Your task to perform on an android device: turn off translation in the chrome app Image 0: 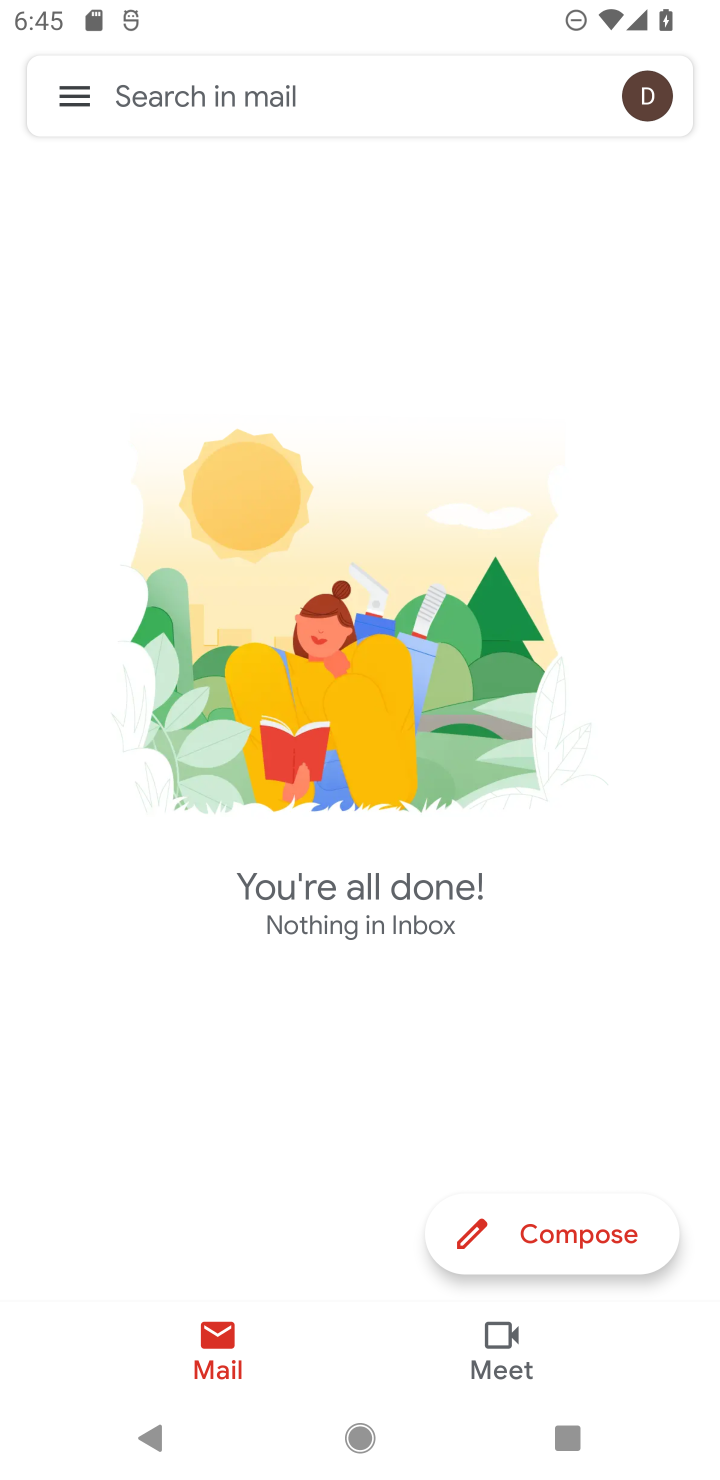
Step 0: press home button
Your task to perform on an android device: turn off translation in the chrome app Image 1: 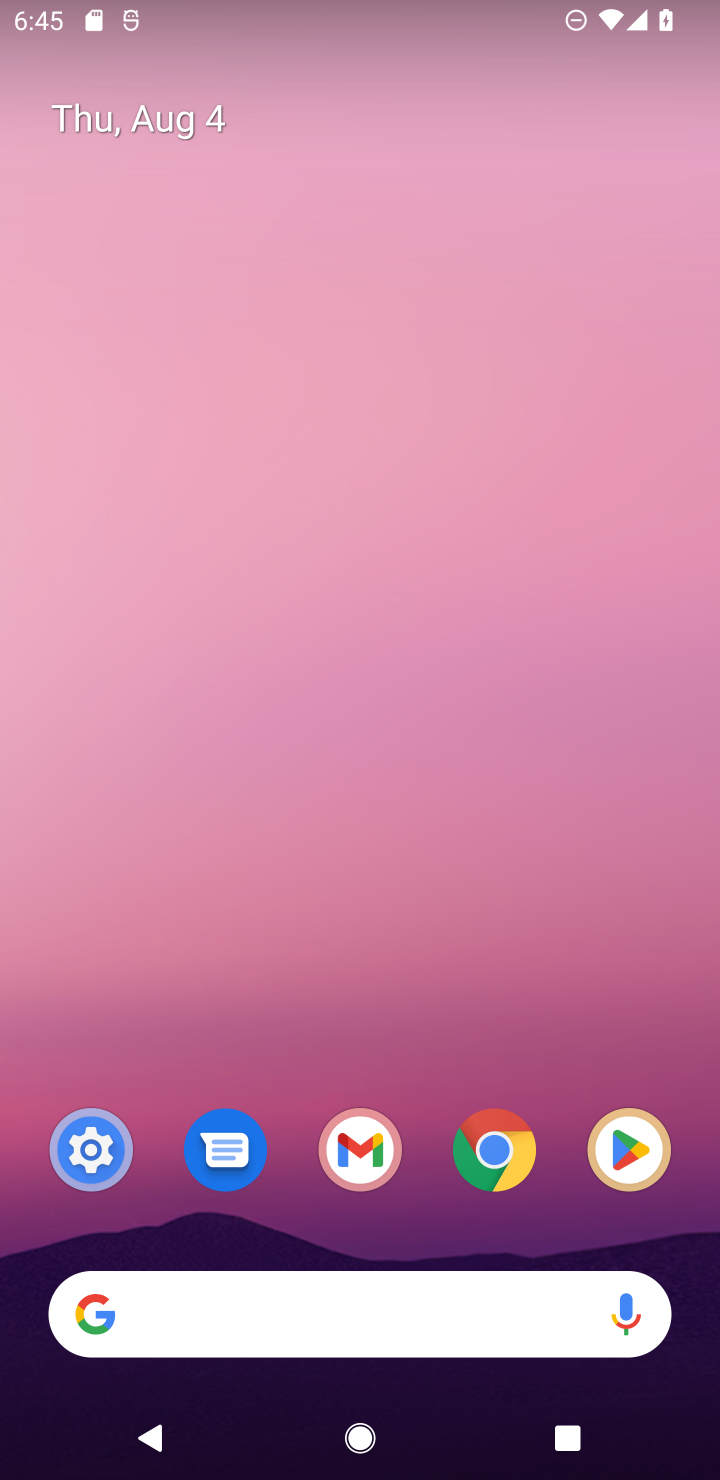
Step 1: drag from (307, 1283) to (220, 149)
Your task to perform on an android device: turn off translation in the chrome app Image 2: 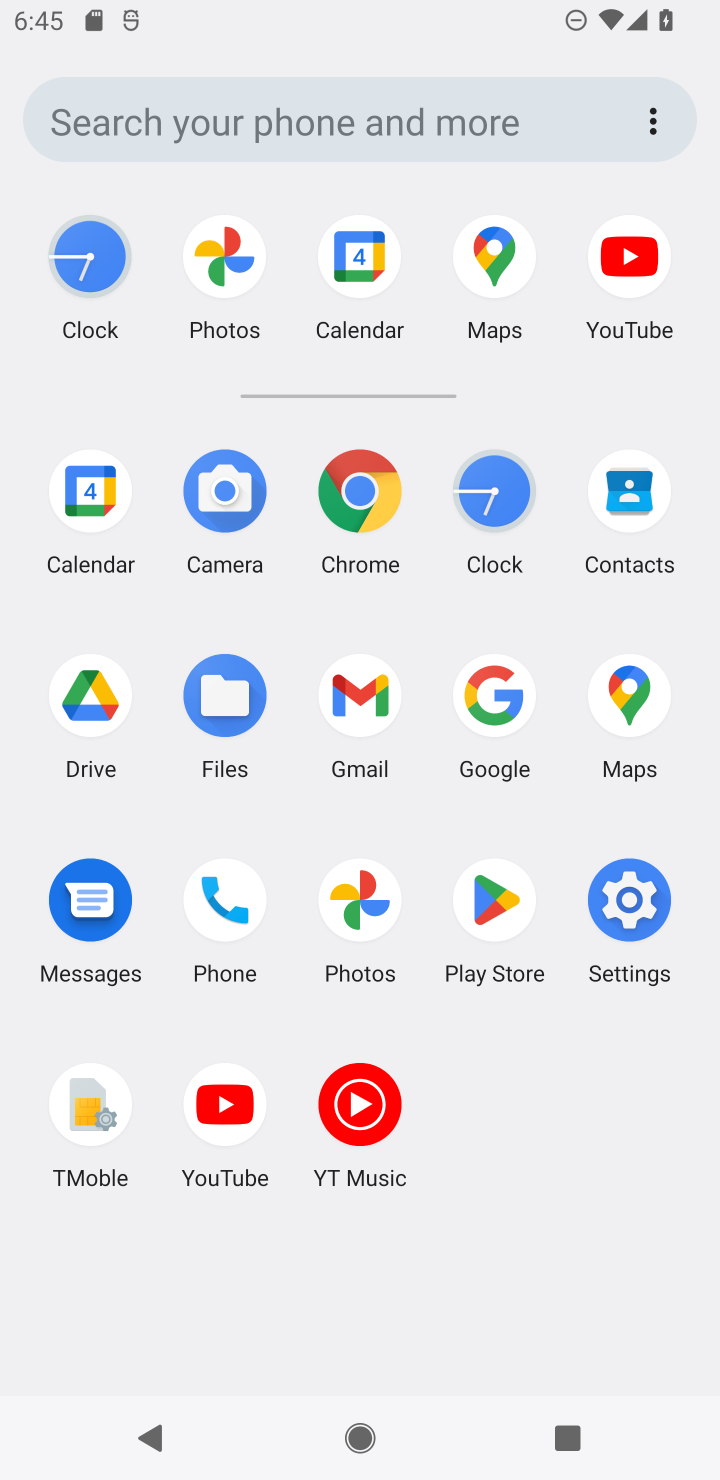
Step 2: click (360, 491)
Your task to perform on an android device: turn off translation in the chrome app Image 3: 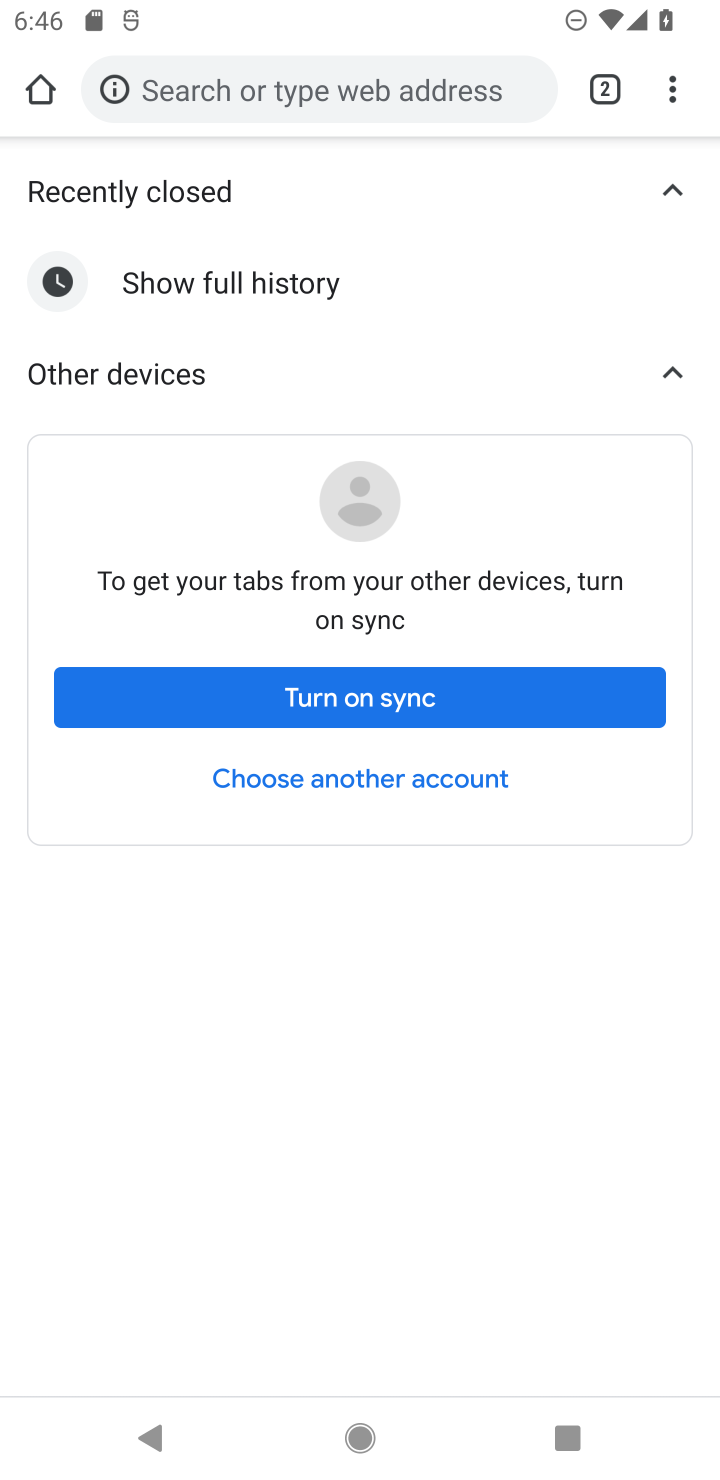
Step 3: drag from (664, 71) to (421, 908)
Your task to perform on an android device: turn off translation in the chrome app Image 4: 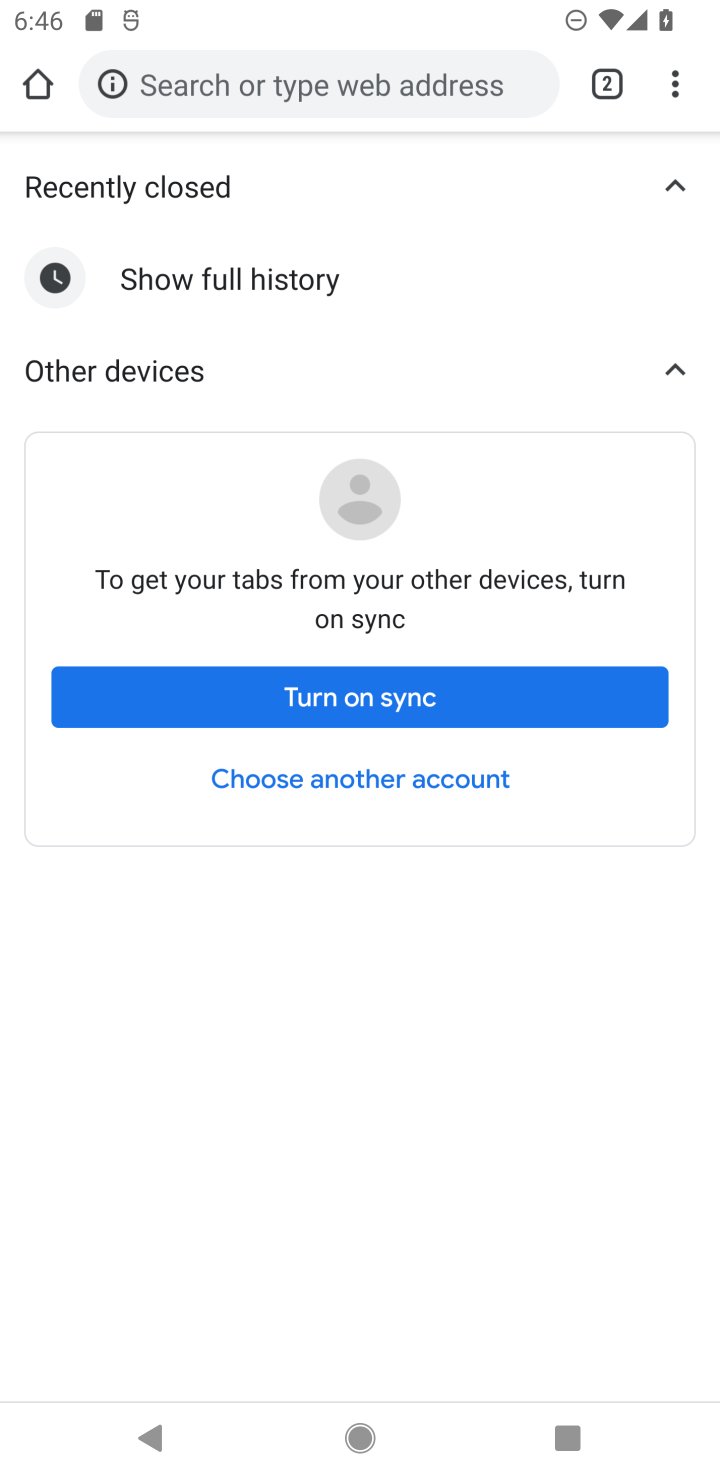
Step 4: click (421, 908)
Your task to perform on an android device: turn off translation in the chrome app Image 5: 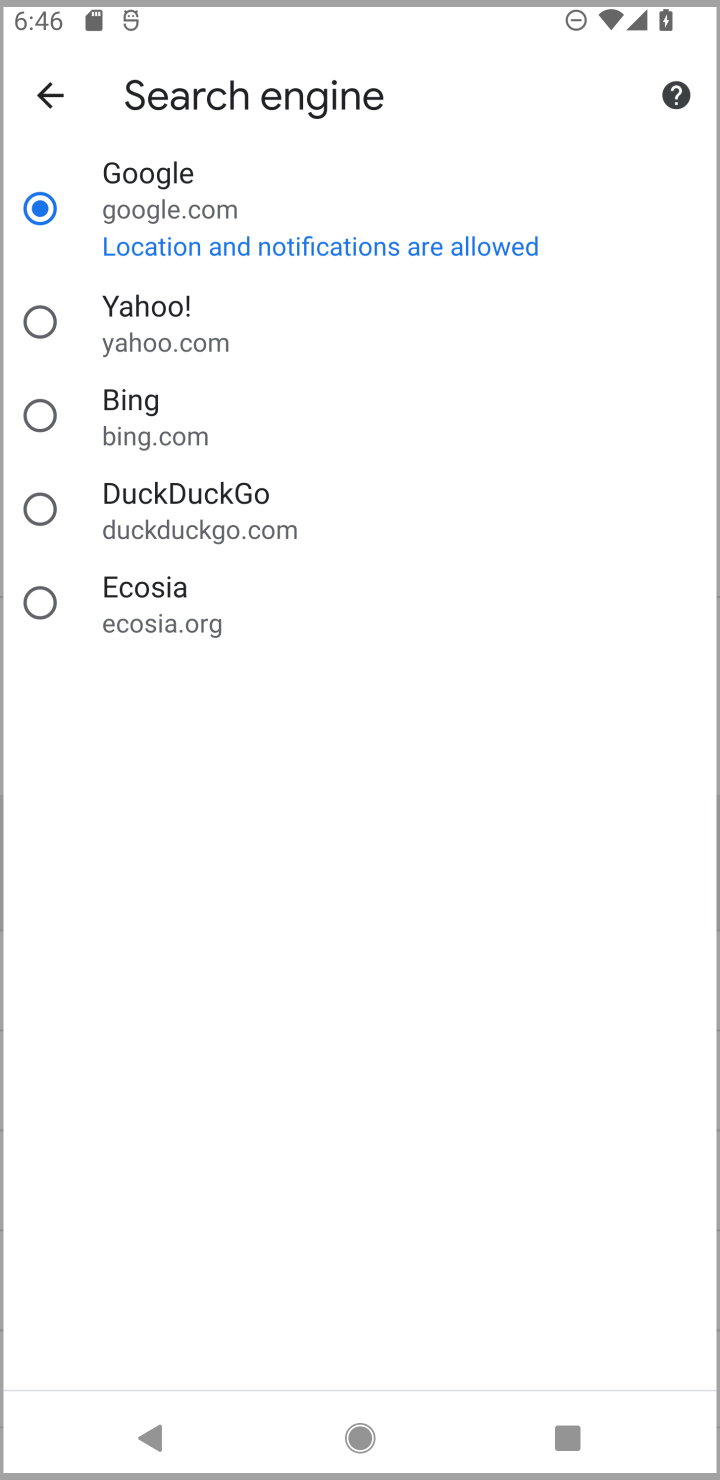
Step 5: drag from (332, 1275) to (369, 931)
Your task to perform on an android device: turn off translation in the chrome app Image 6: 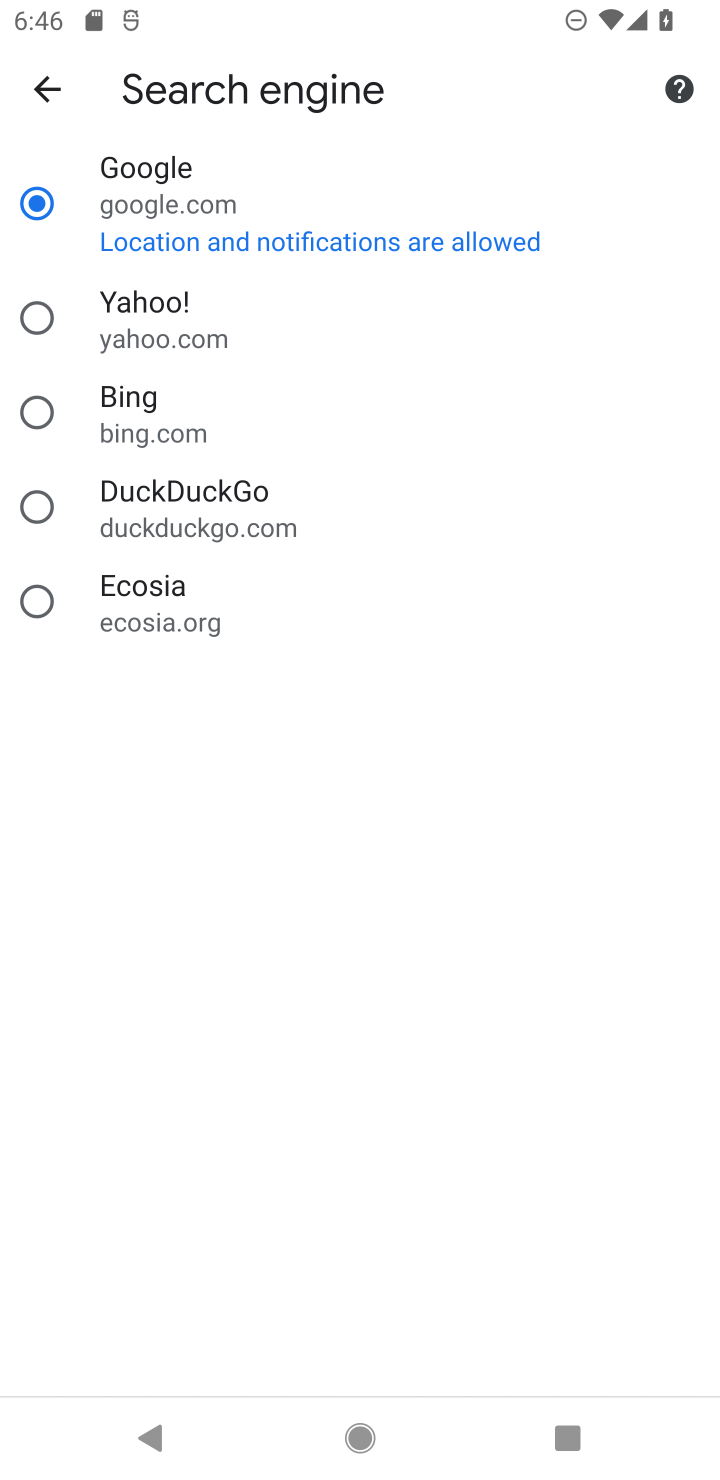
Step 6: press back button
Your task to perform on an android device: turn off translation in the chrome app Image 7: 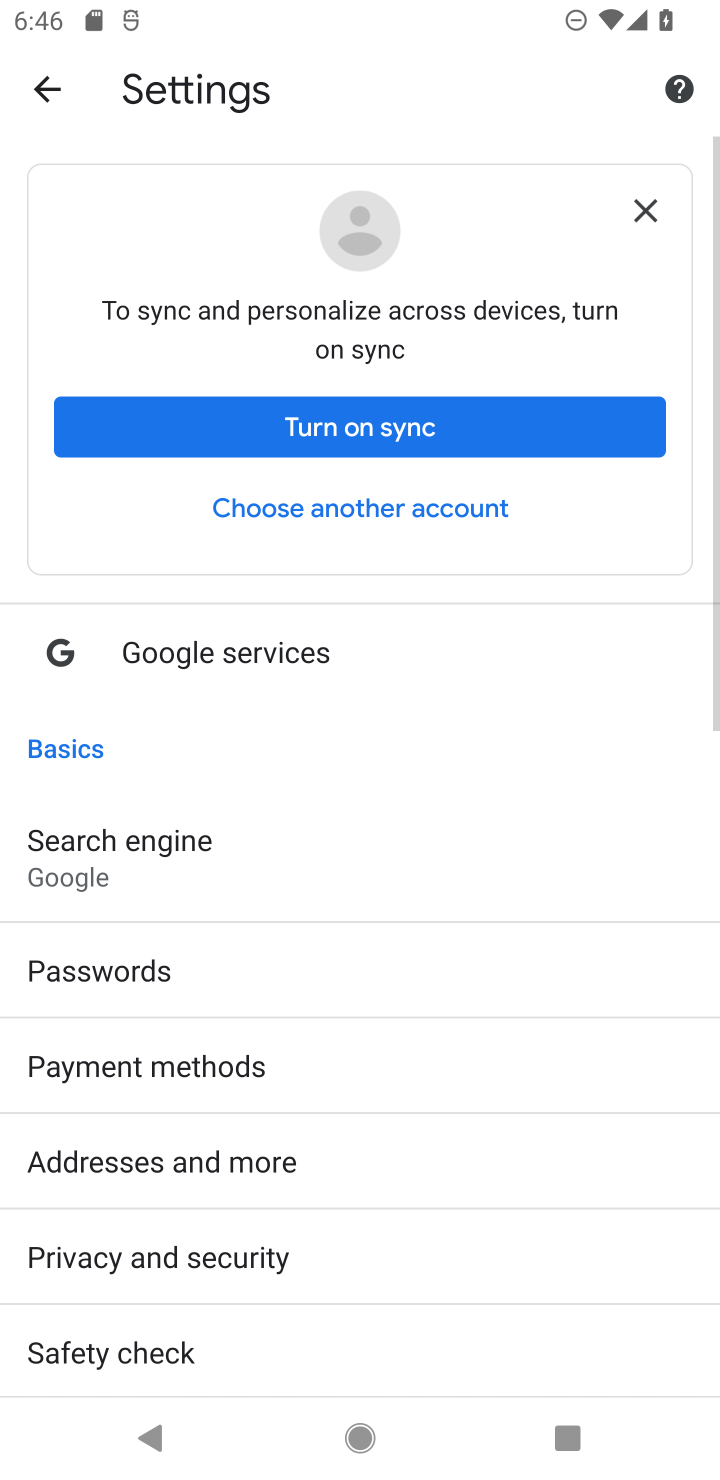
Step 7: drag from (404, 1091) to (404, 327)
Your task to perform on an android device: turn off translation in the chrome app Image 8: 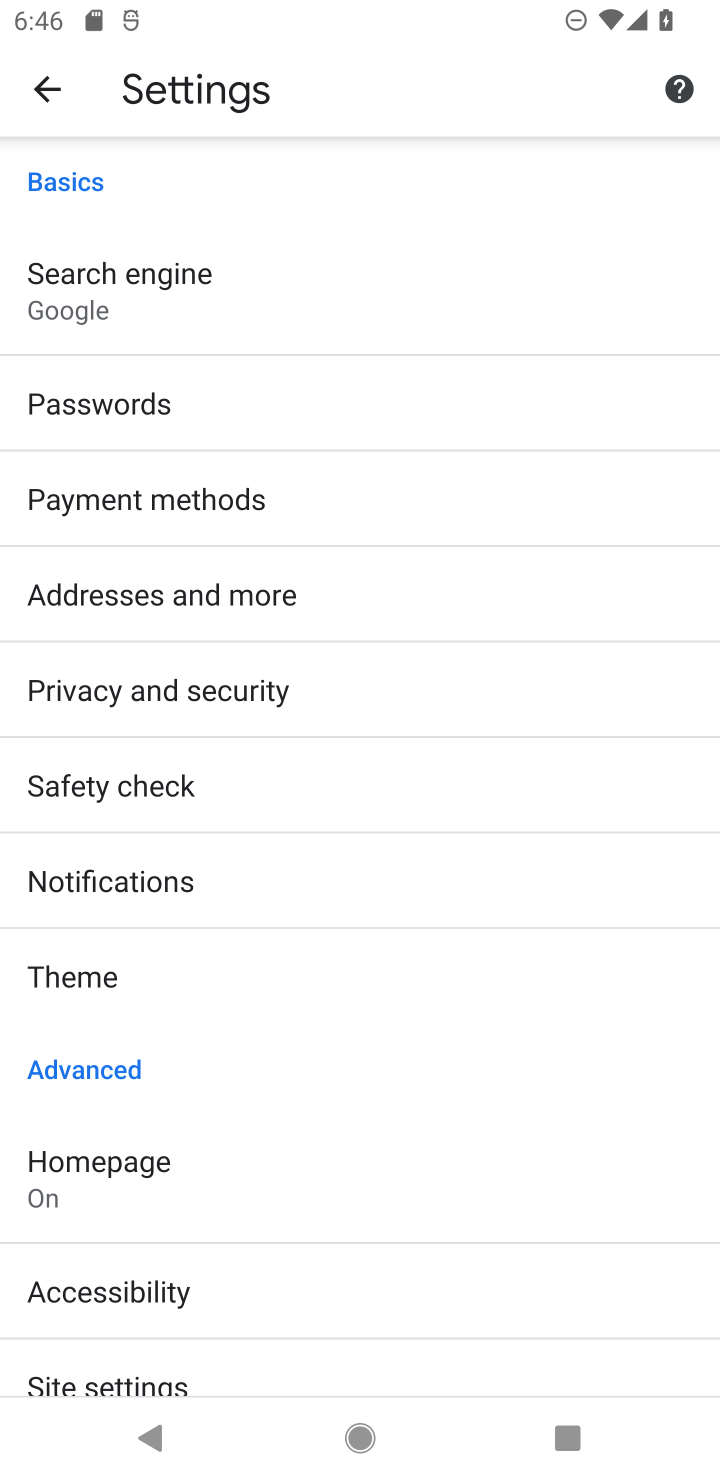
Step 8: drag from (290, 1196) to (163, 579)
Your task to perform on an android device: turn off translation in the chrome app Image 9: 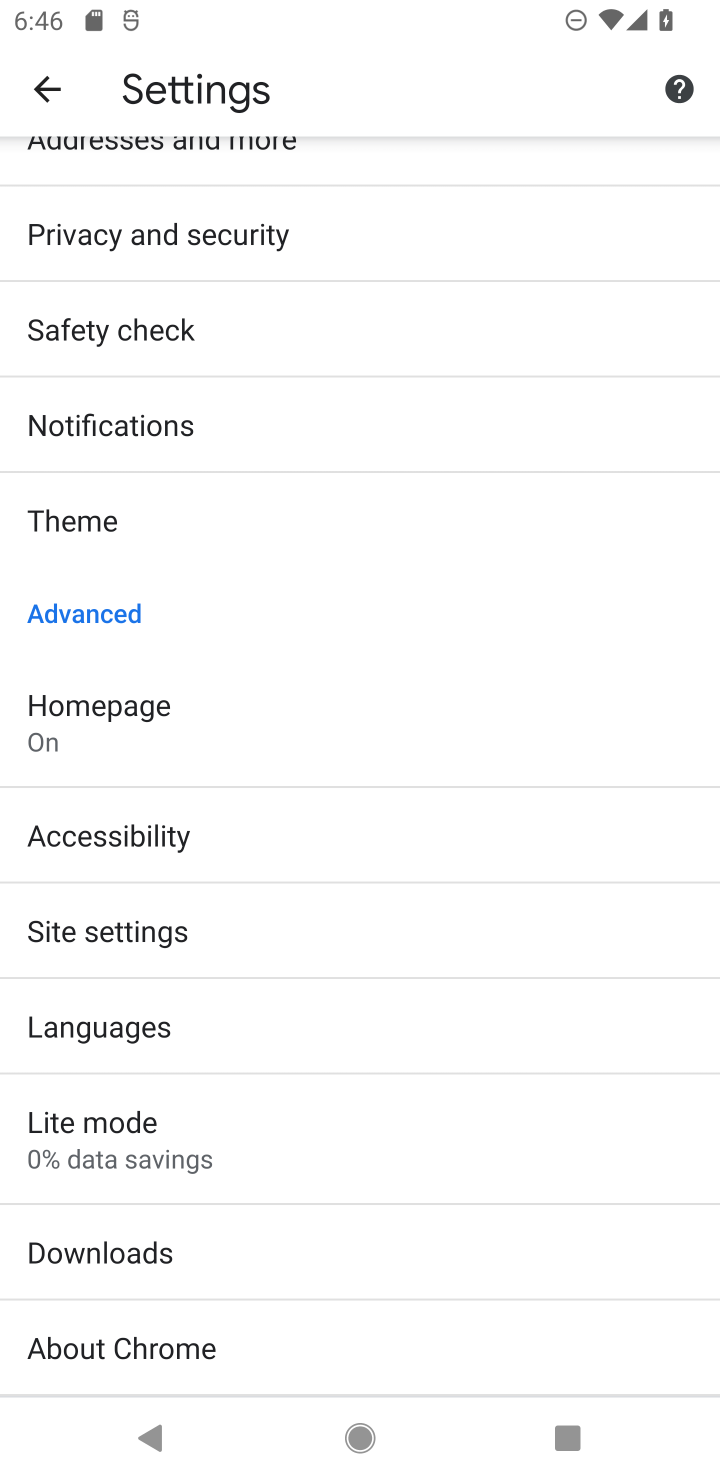
Step 9: click (211, 1026)
Your task to perform on an android device: turn off translation in the chrome app Image 10: 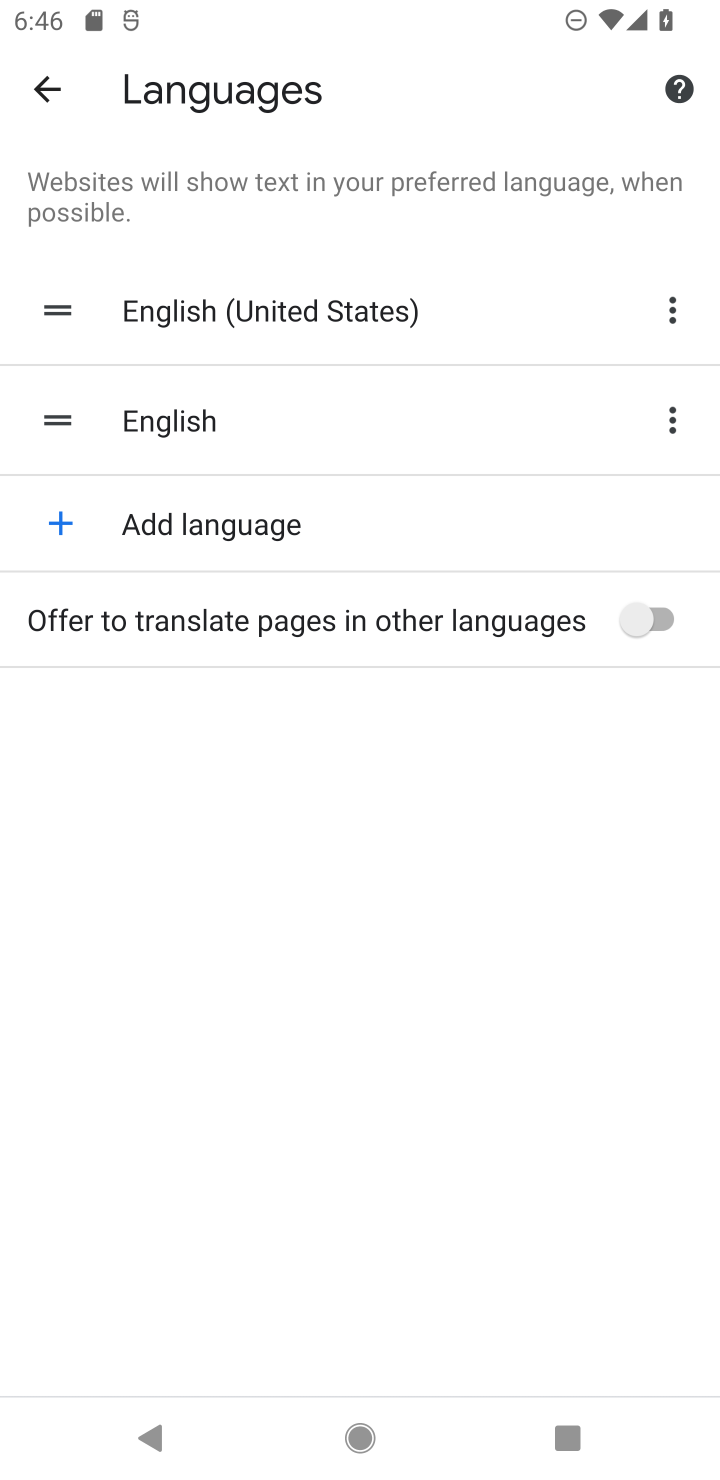
Step 10: task complete